Your task to perform on an android device: turn off javascript in the chrome app Image 0: 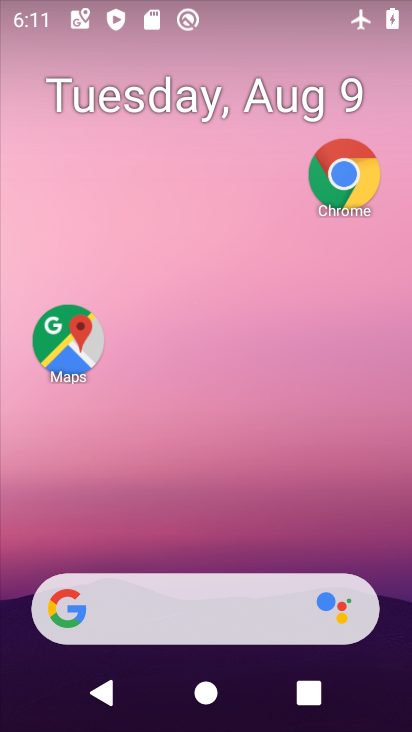
Step 0: drag from (202, 549) to (389, 33)
Your task to perform on an android device: turn off javascript in the chrome app Image 1: 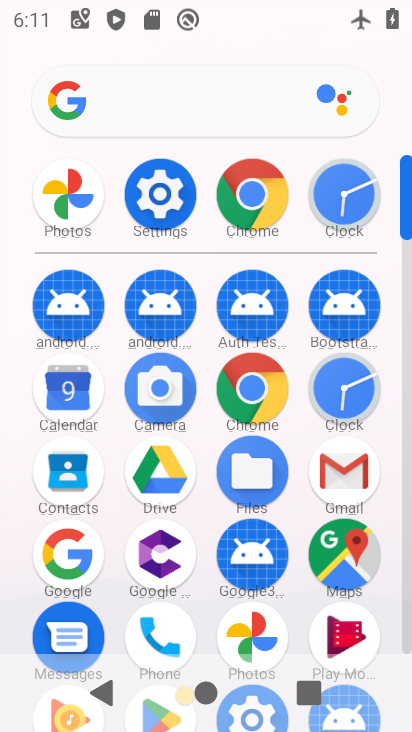
Step 1: click (255, 382)
Your task to perform on an android device: turn off javascript in the chrome app Image 2: 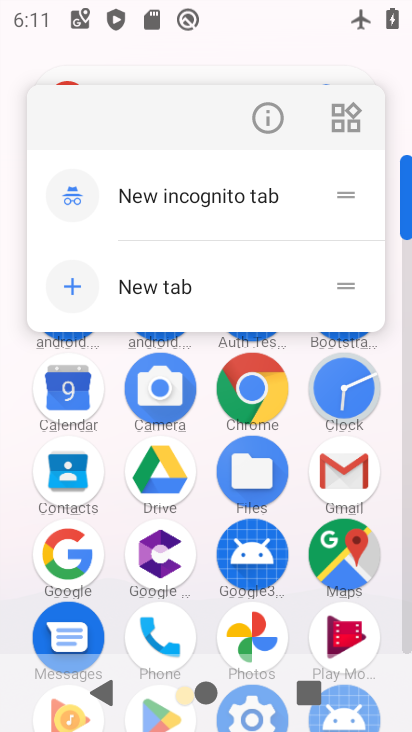
Step 2: click (280, 122)
Your task to perform on an android device: turn off javascript in the chrome app Image 3: 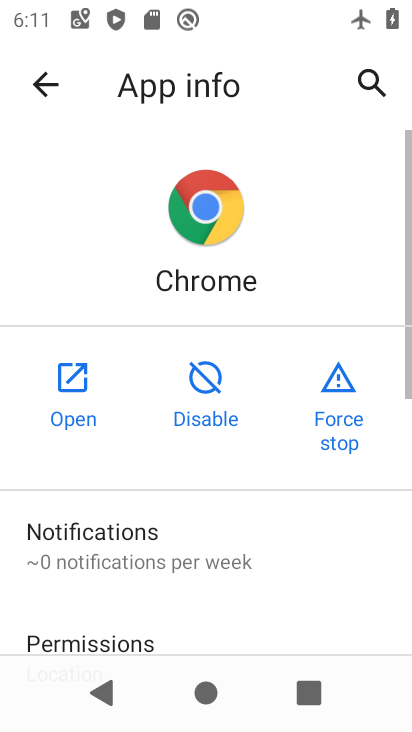
Step 3: click (87, 373)
Your task to perform on an android device: turn off javascript in the chrome app Image 4: 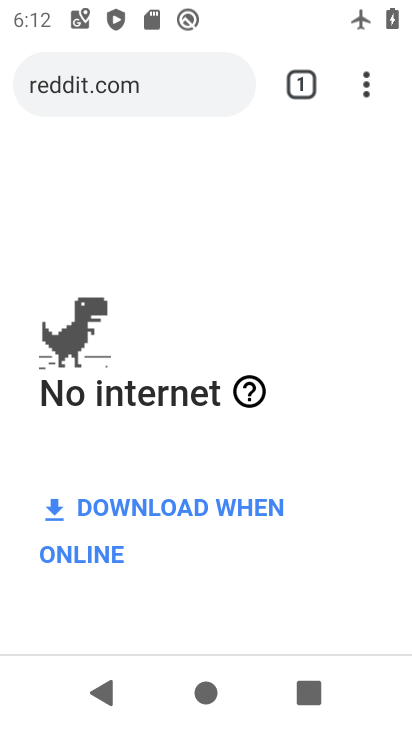
Step 4: task complete